Your task to perform on an android device: Go to location settings Image 0: 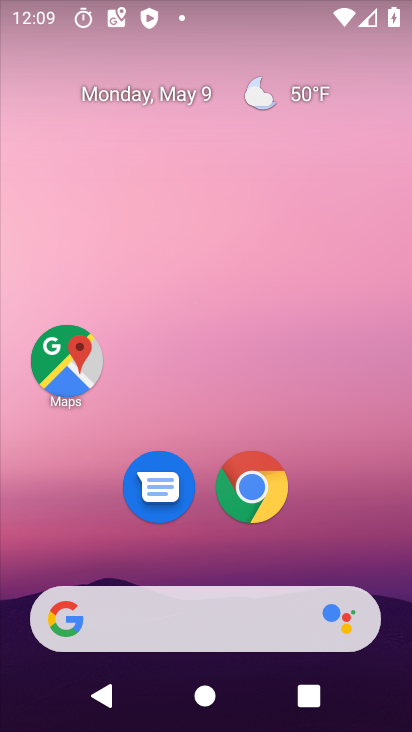
Step 0: drag from (322, 524) to (322, 26)
Your task to perform on an android device: Go to location settings Image 1: 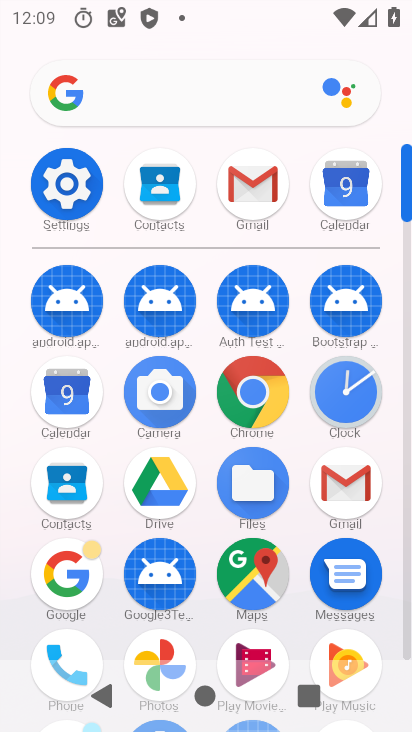
Step 1: click (52, 189)
Your task to perform on an android device: Go to location settings Image 2: 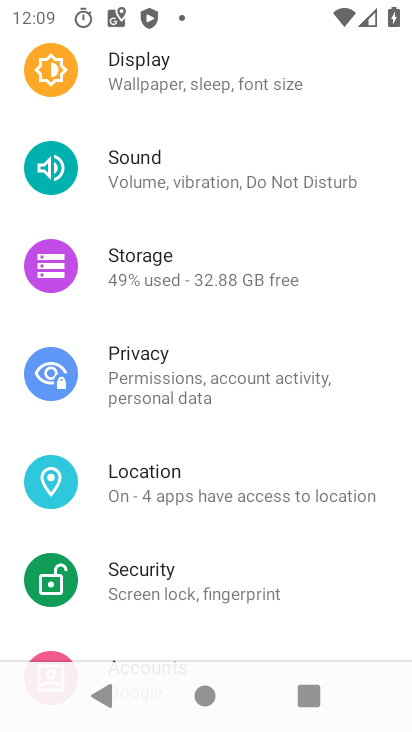
Step 2: click (200, 489)
Your task to perform on an android device: Go to location settings Image 3: 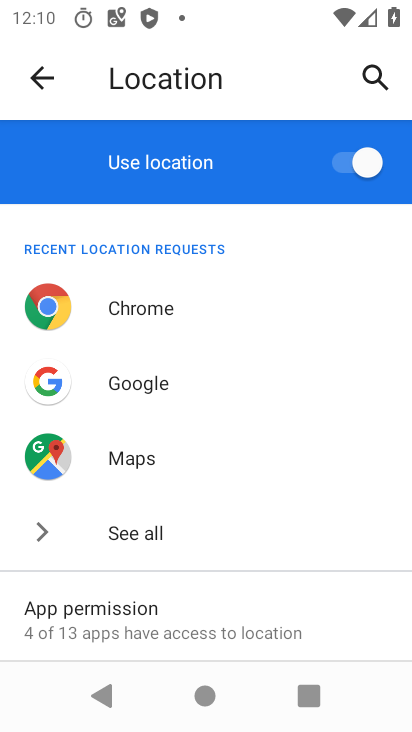
Step 3: task complete